Your task to perform on an android device: Search for pizza restaurants on Maps Image 0: 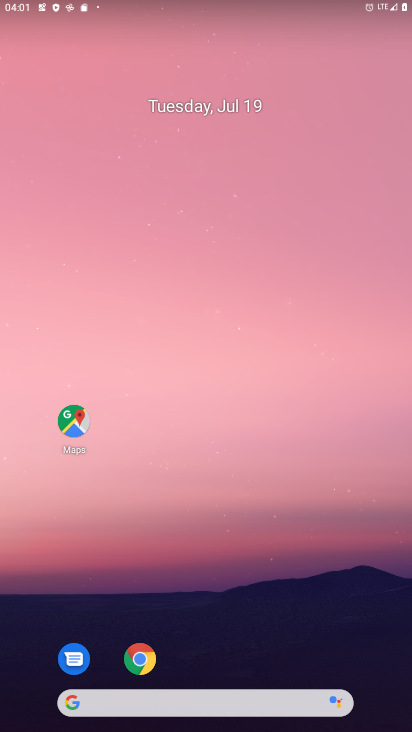
Step 0: click (72, 445)
Your task to perform on an android device: Search for pizza restaurants on Maps Image 1: 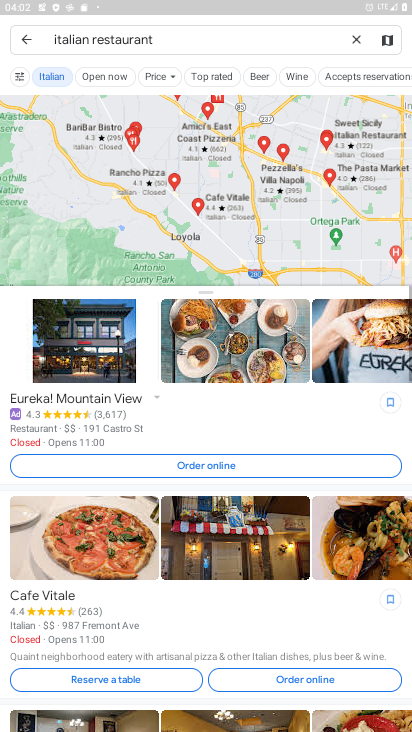
Step 1: click (356, 32)
Your task to perform on an android device: Search for pizza restaurants on Maps Image 2: 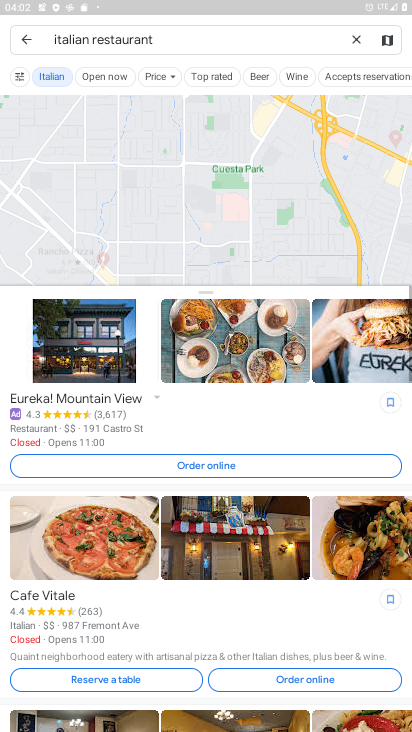
Step 2: click (207, 41)
Your task to perform on an android device: Search for pizza restaurants on Maps Image 3: 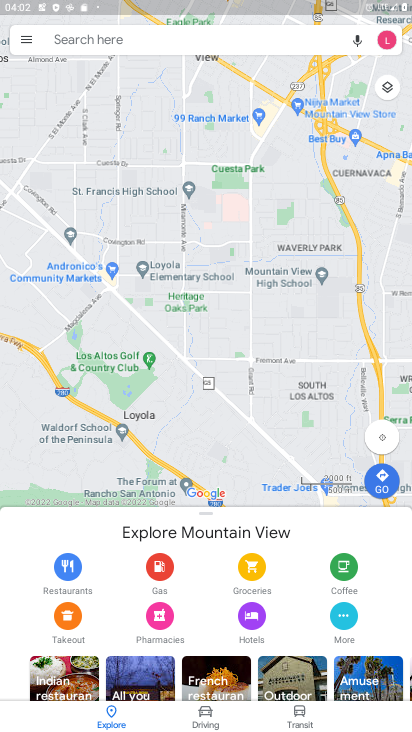
Step 3: click (207, 41)
Your task to perform on an android device: Search for pizza restaurants on Maps Image 4: 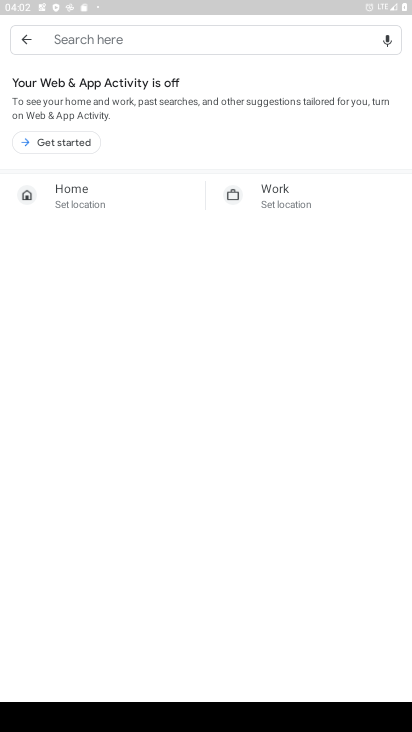
Step 4: type "pizza restaurants "
Your task to perform on an android device: Search for pizza restaurants on Maps Image 5: 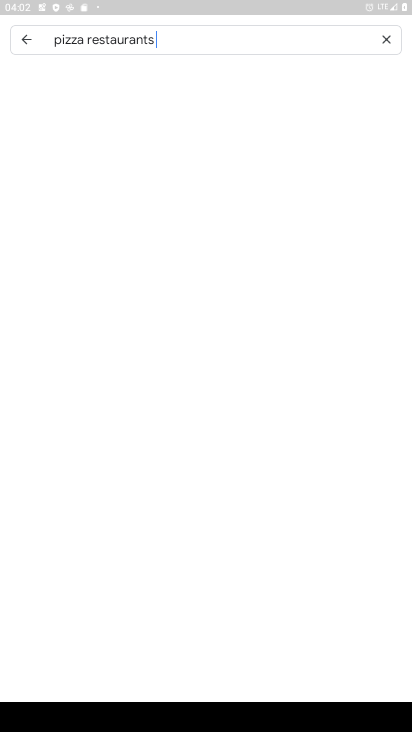
Step 5: type ""
Your task to perform on an android device: Search for pizza restaurants on Maps Image 6: 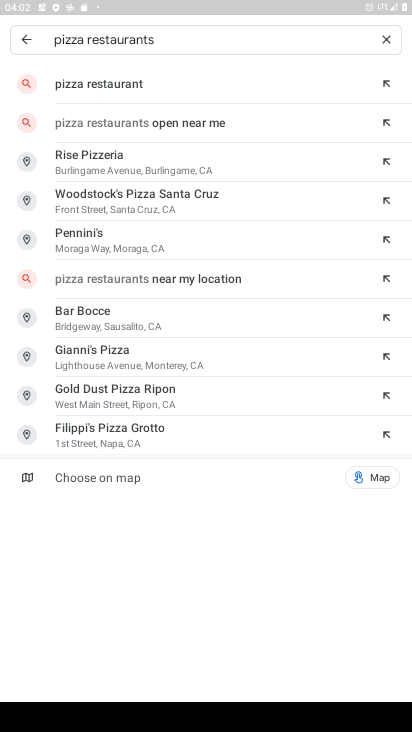
Step 6: click (98, 85)
Your task to perform on an android device: Search for pizza restaurants on Maps Image 7: 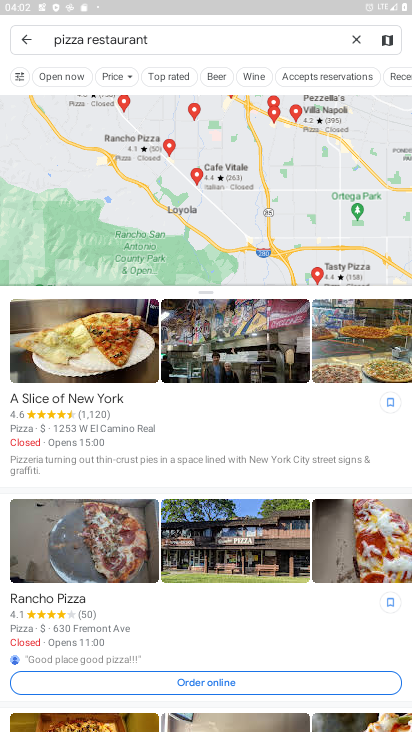
Step 7: task complete